Your task to perform on an android device: Go to Wikipedia Image 0: 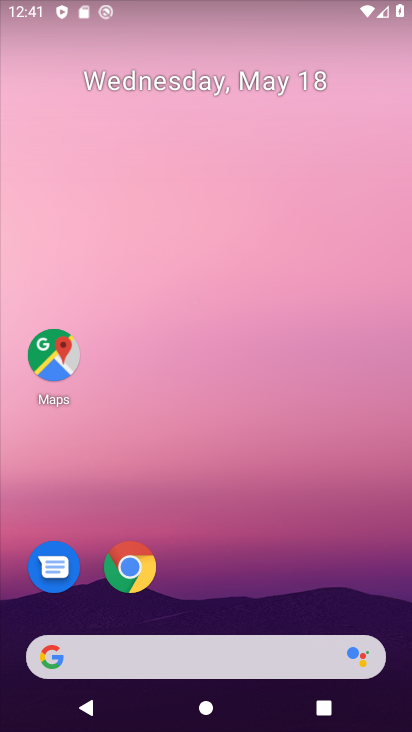
Step 0: click (129, 561)
Your task to perform on an android device: Go to Wikipedia Image 1: 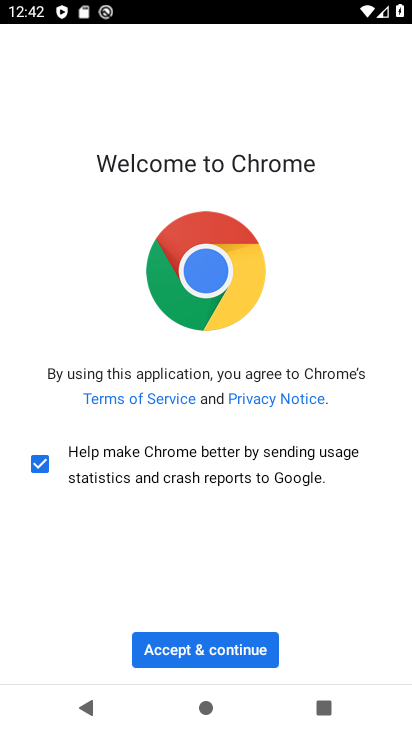
Step 1: click (223, 649)
Your task to perform on an android device: Go to Wikipedia Image 2: 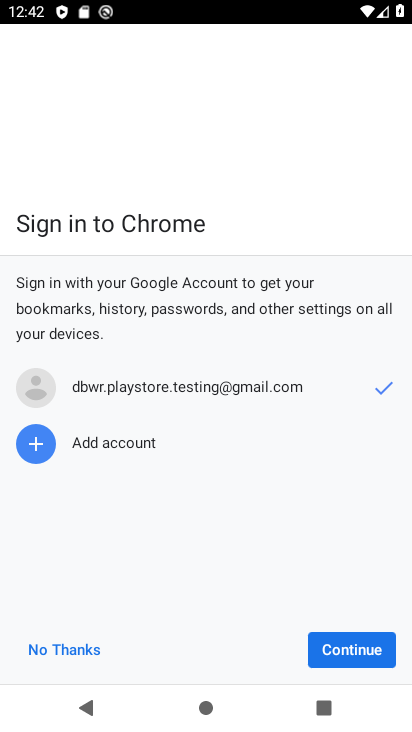
Step 2: click (367, 641)
Your task to perform on an android device: Go to Wikipedia Image 3: 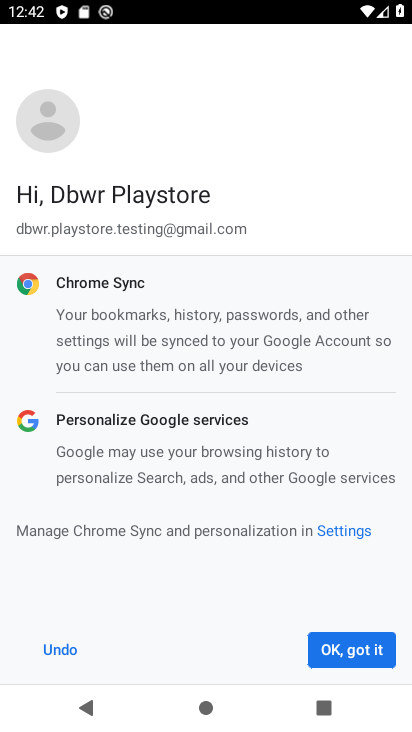
Step 3: click (367, 641)
Your task to perform on an android device: Go to Wikipedia Image 4: 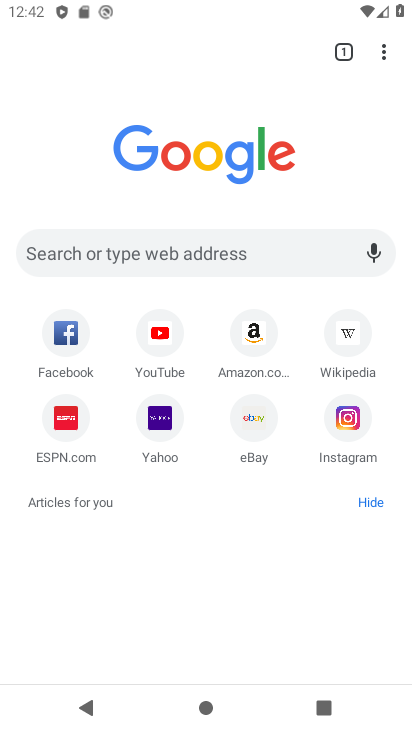
Step 4: click (346, 352)
Your task to perform on an android device: Go to Wikipedia Image 5: 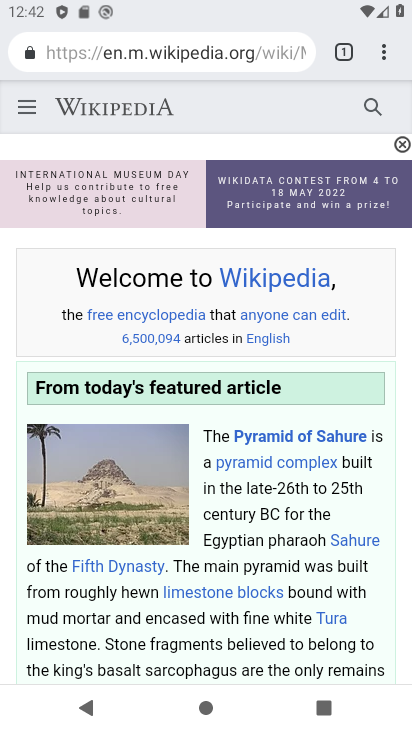
Step 5: task complete